Your task to perform on an android device: uninstall "Pinterest" Image 0: 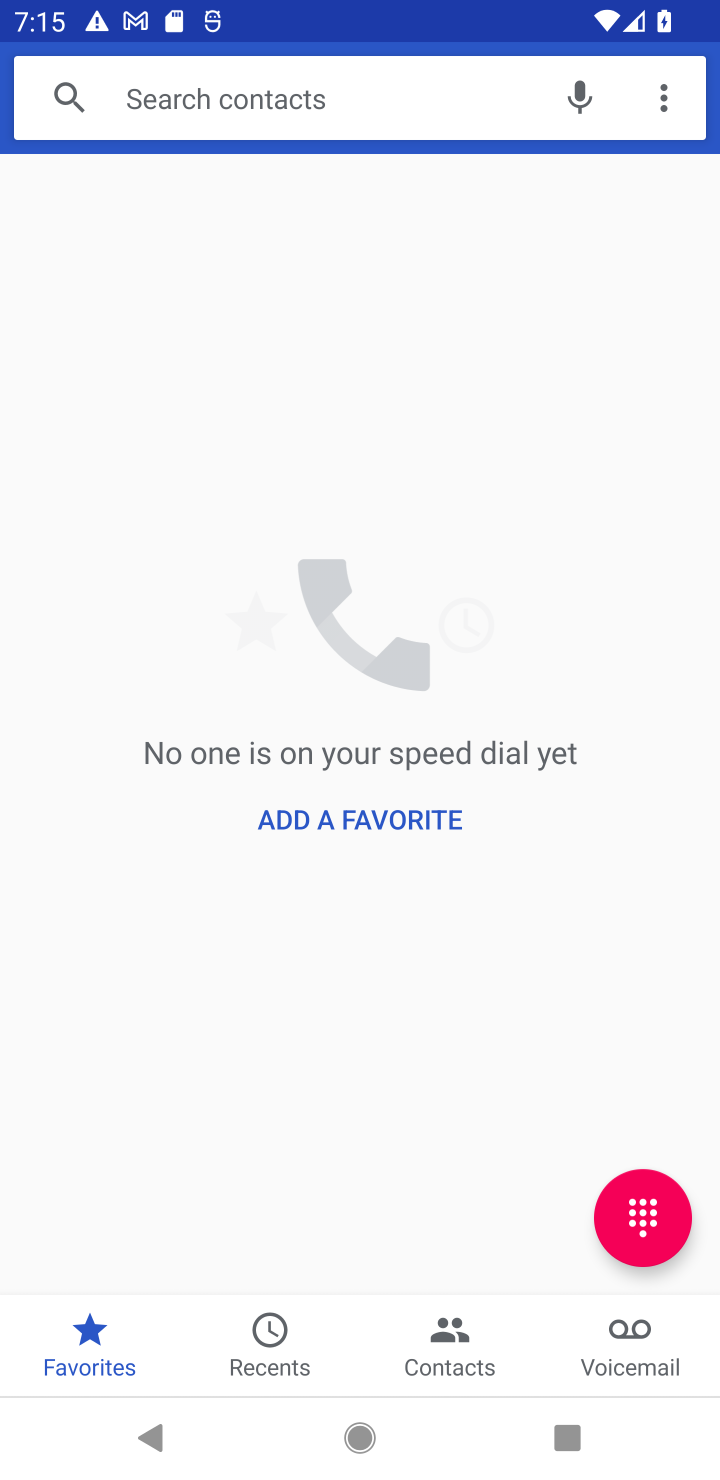
Step 0: press home button
Your task to perform on an android device: uninstall "Pinterest" Image 1: 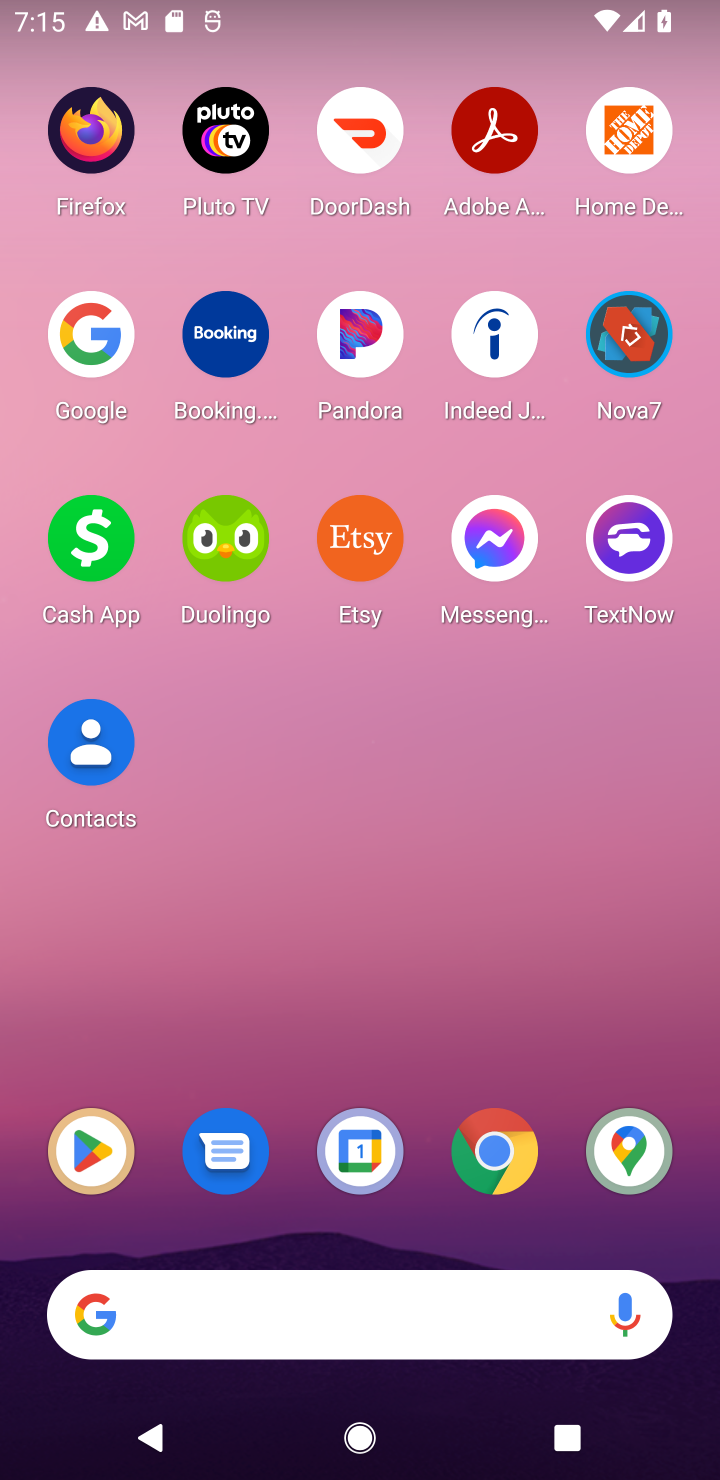
Step 1: drag from (415, 1269) to (433, 64)
Your task to perform on an android device: uninstall "Pinterest" Image 2: 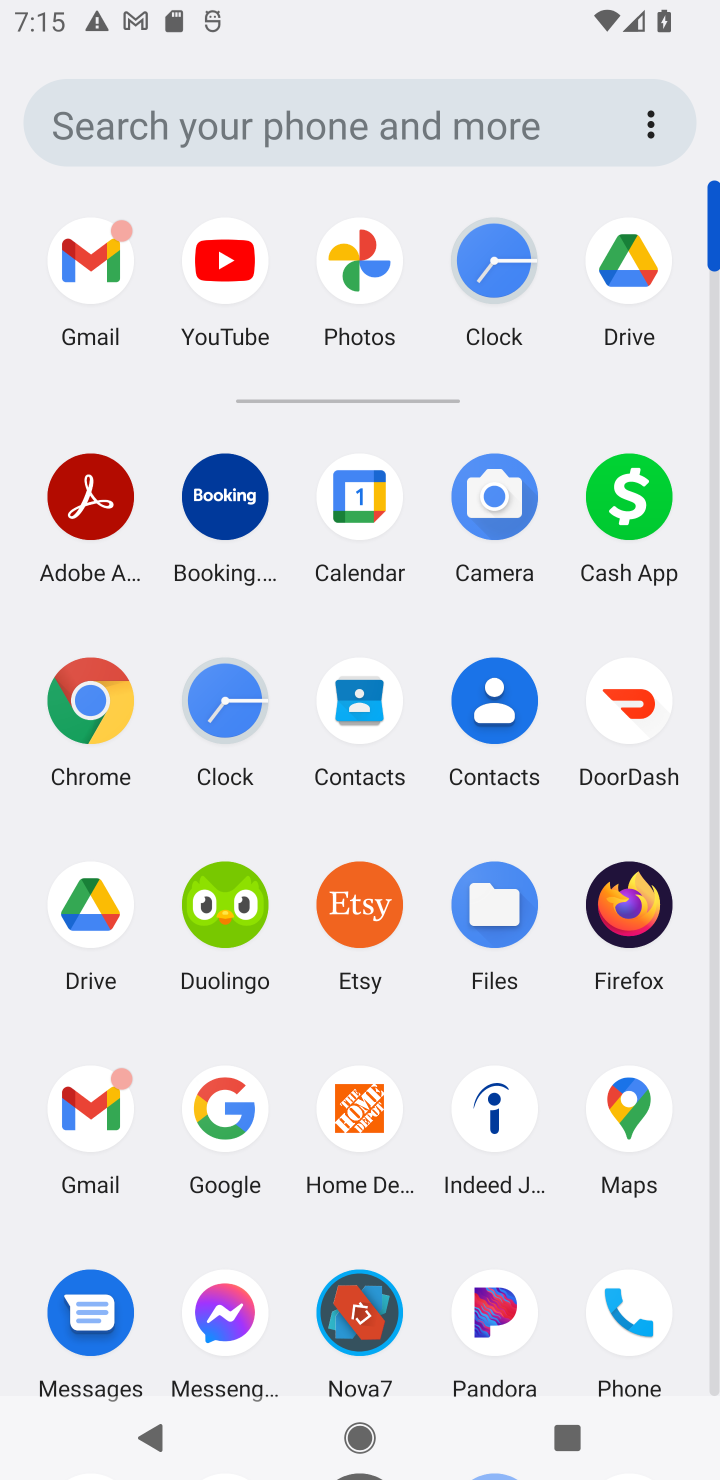
Step 2: drag from (532, 1074) to (532, 549)
Your task to perform on an android device: uninstall "Pinterest" Image 3: 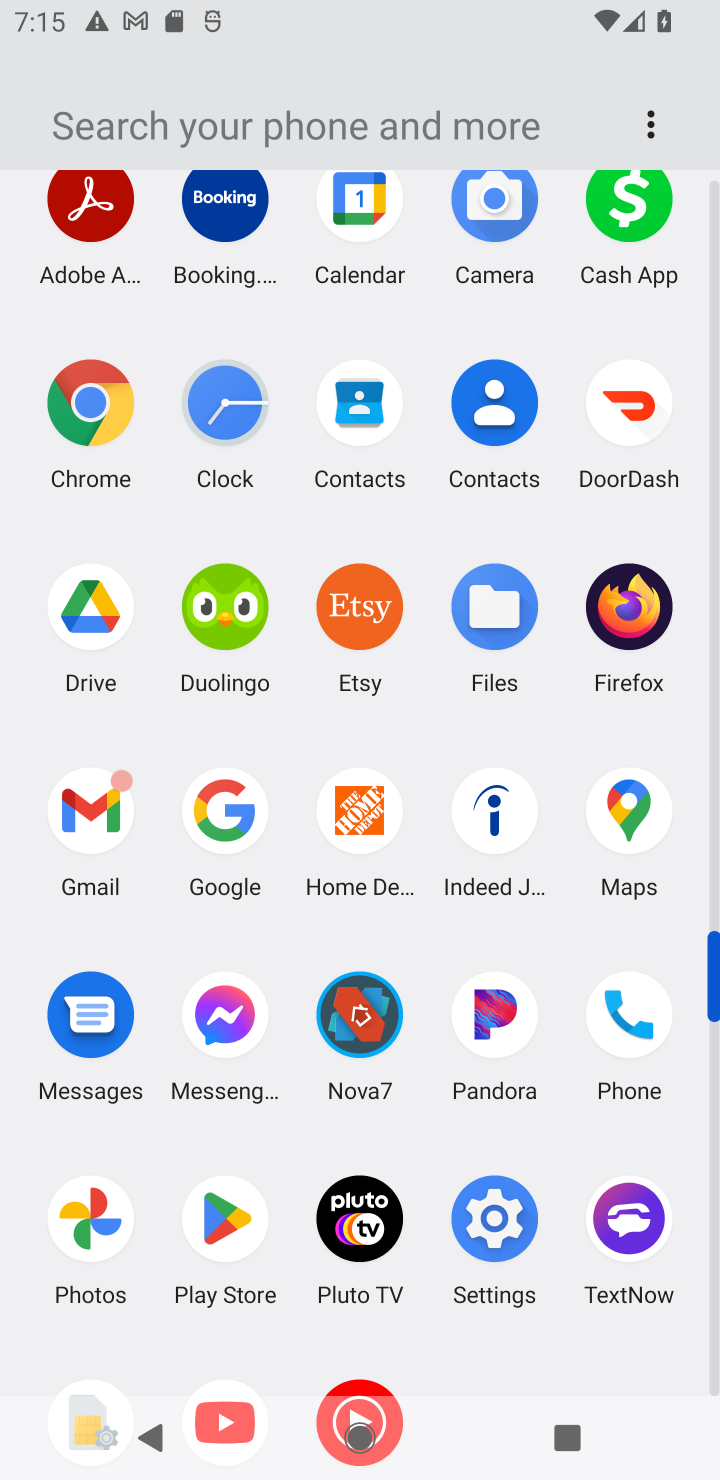
Step 3: click (234, 1219)
Your task to perform on an android device: uninstall "Pinterest" Image 4: 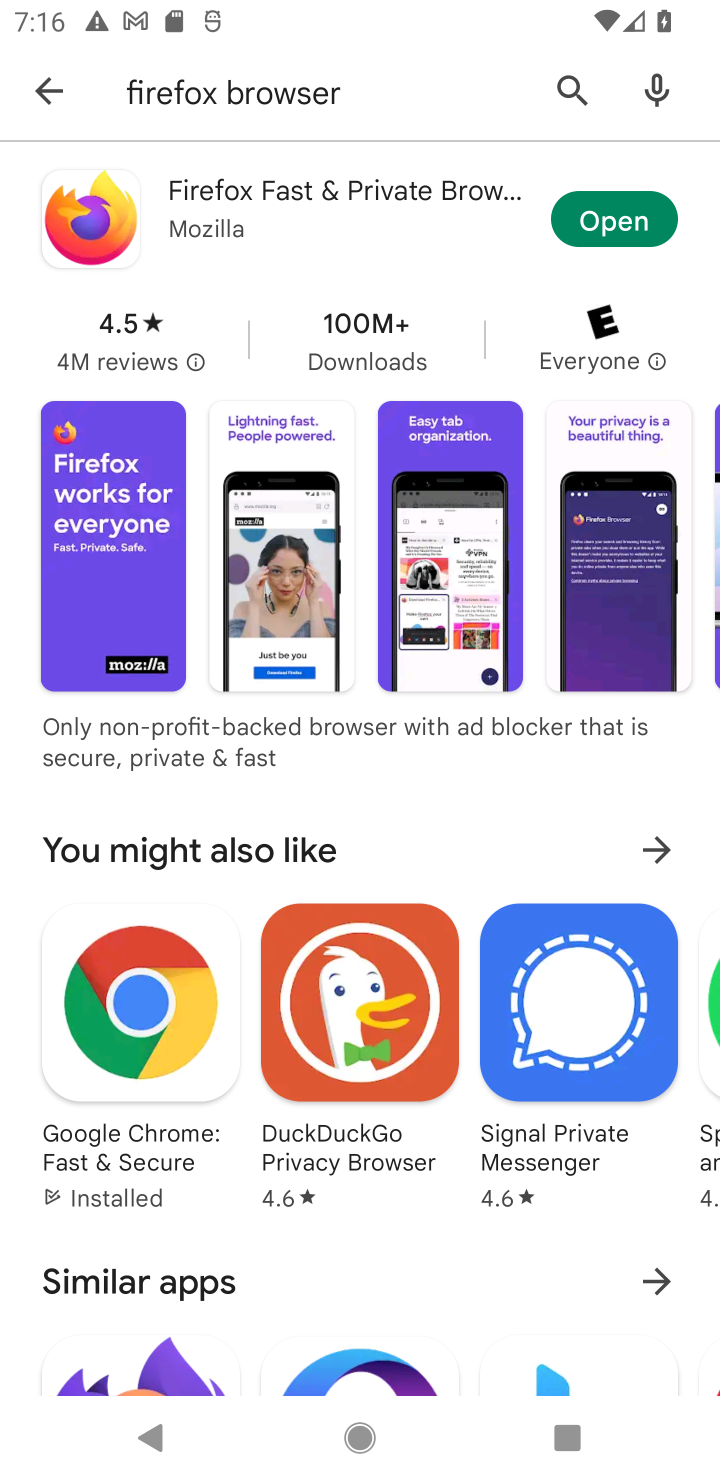
Step 4: task complete